Your task to perform on an android device: turn off wifi Image 0: 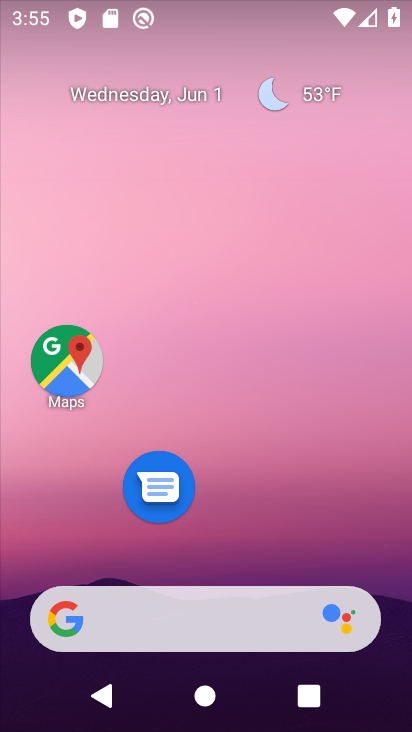
Step 0: drag from (229, 542) to (356, 0)
Your task to perform on an android device: turn off wifi Image 1: 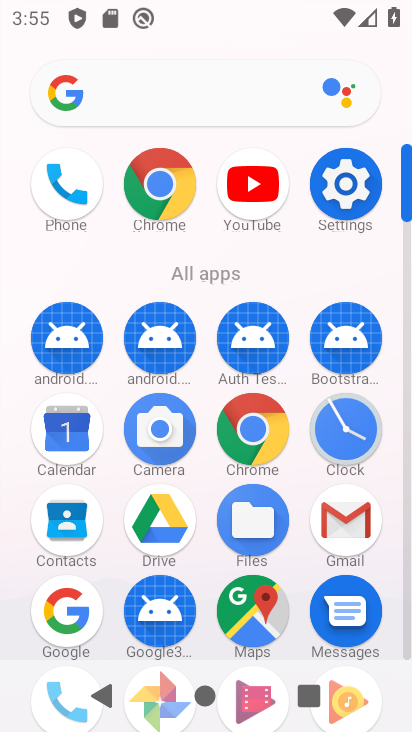
Step 1: click (354, 206)
Your task to perform on an android device: turn off wifi Image 2: 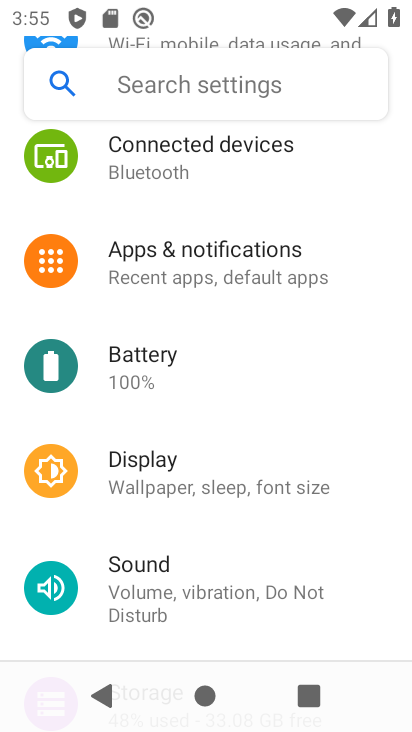
Step 2: drag from (220, 221) to (224, 520)
Your task to perform on an android device: turn off wifi Image 3: 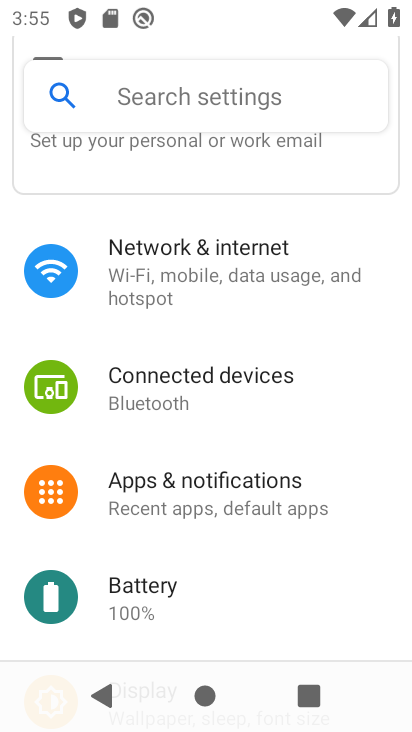
Step 3: click (211, 266)
Your task to perform on an android device: turn off wifi Image 4: 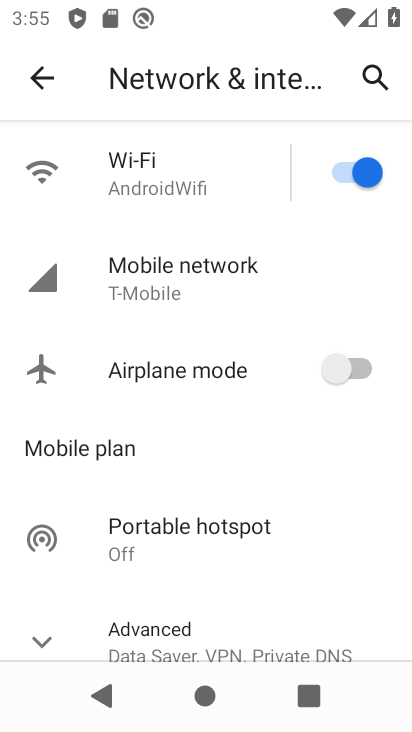
Step 4: click (320, 169)
Your task to perform on an android device: turn off wifi Image 5: 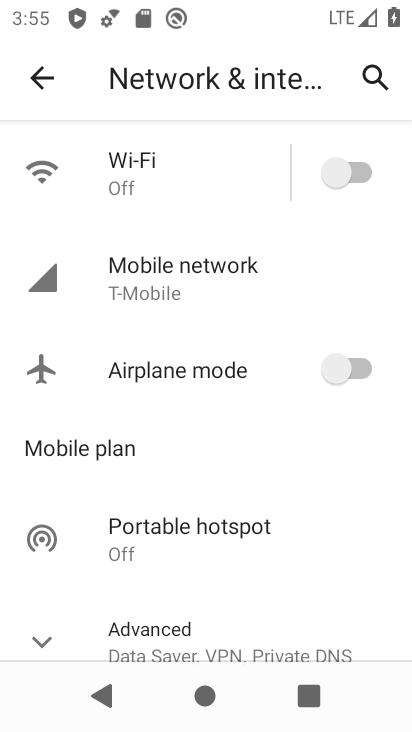
Step 5: task complete